Your task to perform on an android device: Search for Italian restaurants on Maps Image 0: 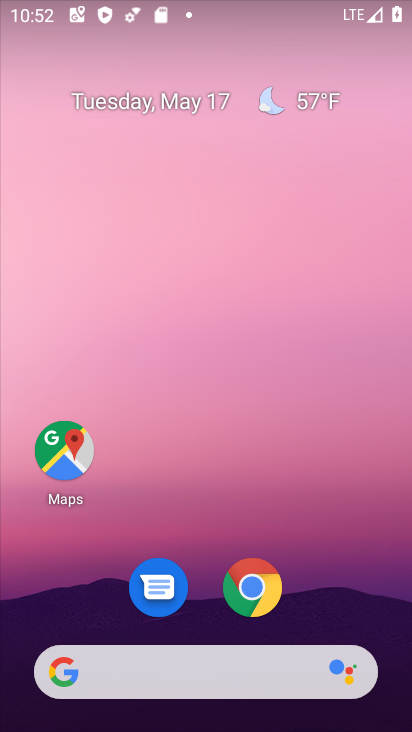
Step 0: drag from (361, 608) to (203, 38)
Your task to perform on an android device: Search for Italian restaurants on Maps Image 1: 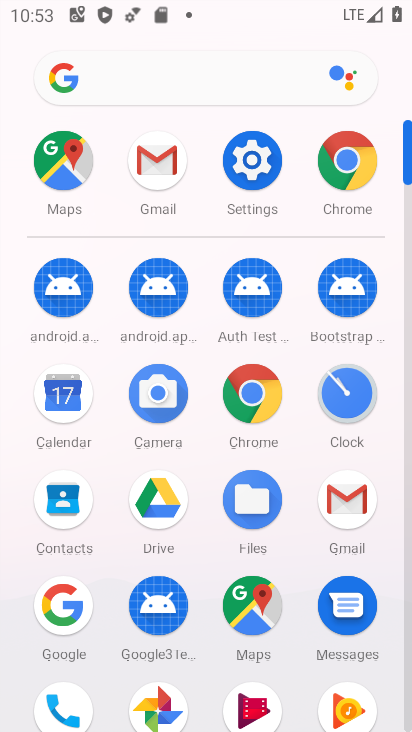
Step 1: click (248, 596)
Your task to perform on an android device: Search for Italian restaurants on Maps Image 2: 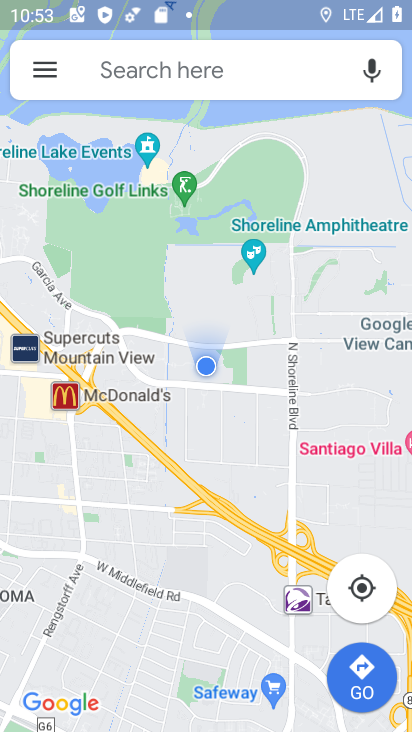
Step 2: click (172, 64)
Your task to perform on an android device: Search for Italian restaurants on Maps Image 3: 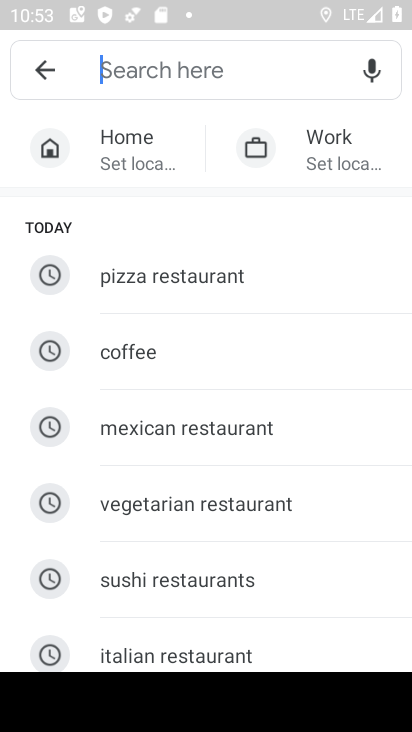
Step 3: click (171, 661)
Your task to perform on an android device: Search for Italian restaurants on Maps Image 4: 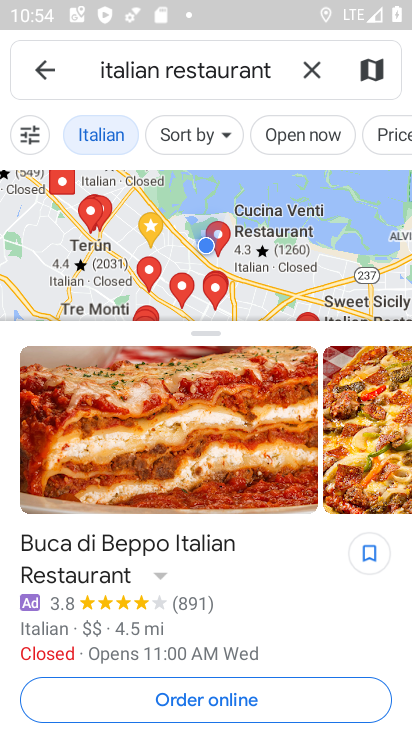
Step 4: task complete